Your task to perform on an android device: open app "Cash App" (install if not already installed) Image 0: 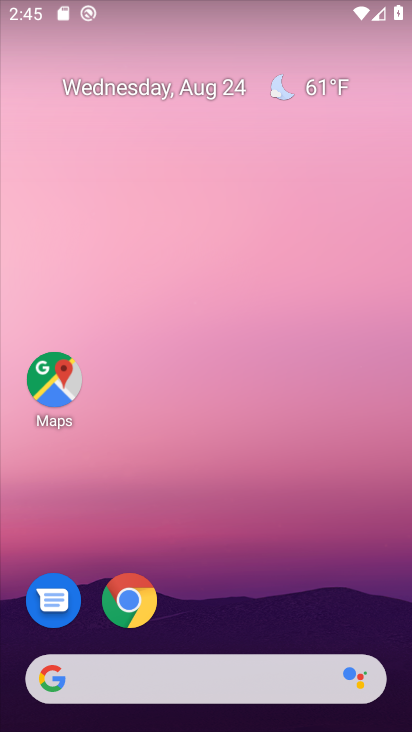
Step 0: drag from (317, 110) to (325, 6)
Your task to perform on an android device: open app "Cash App" (install if not already installed) Image 1: 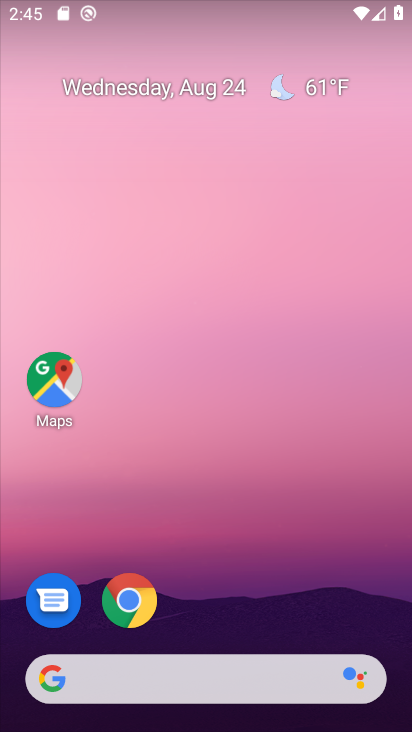
Step 1: drag from (234, 594) to (296, 73)
Your task to perform on an android device: open app "Cash App" (install if not already installed) Image 2: 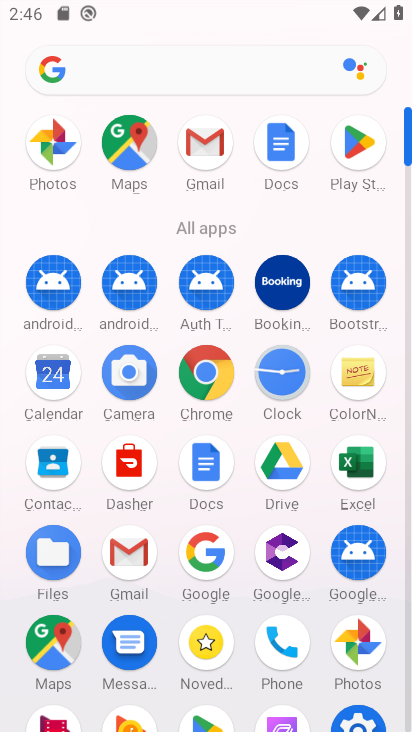
Step 2: click (361, 136)
Your task to perform on an android device: open app "Cash App" (install if not already installed) Image 3: 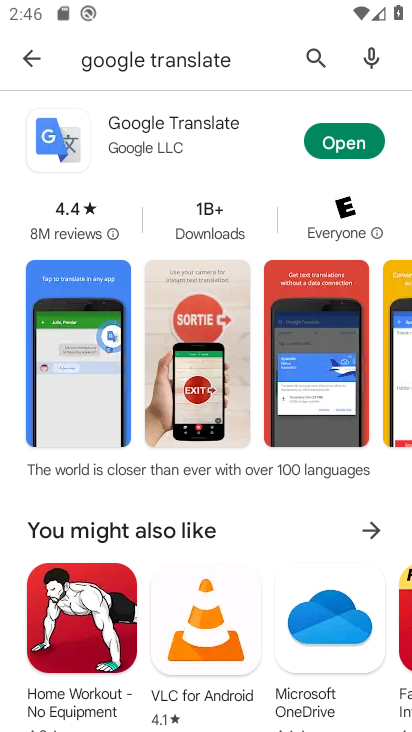
Step 3: click (315, 51)
Your task to perform on an android device: open app "Cash App" (install if not already installed) Image 4: 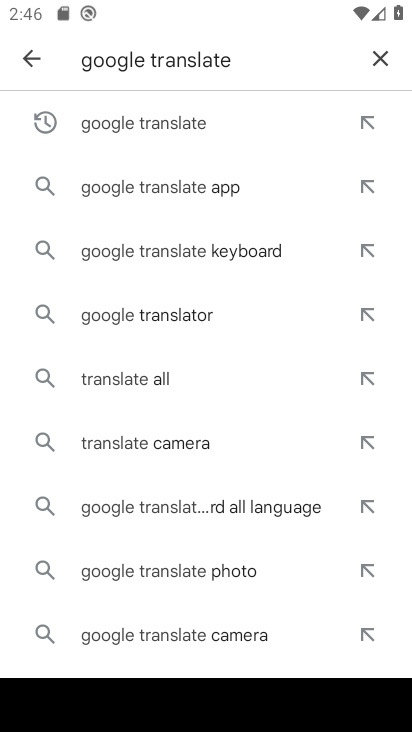
Step 4: click (382, 61)
Your task to perform on an android device: open app "Cash App" (install if not already installed) Image 5: 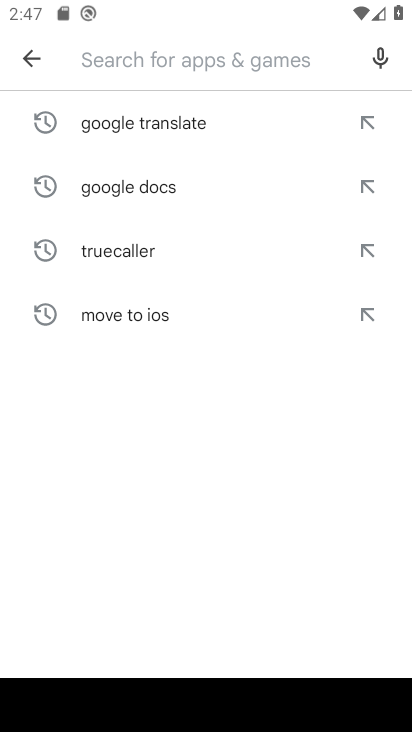
Step 5: click (136, 36)
Your task to perform on an android device: open app "Cash App" (install if not already installed) Image 6: 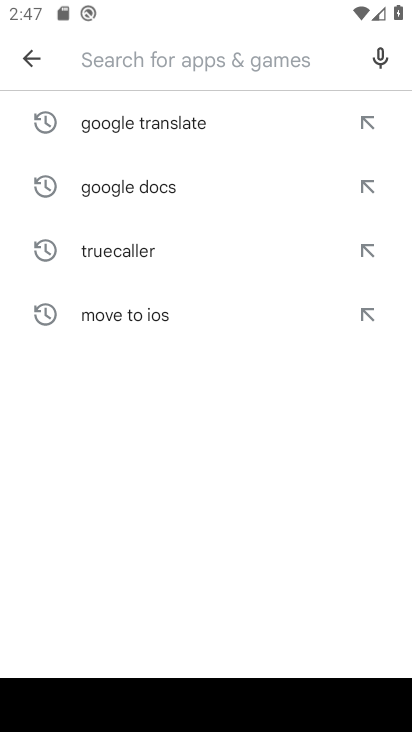
Step 6: type "Cash App"
Your task to perform on an android device: open app "Cash App" (install if not already installed) Image 7: 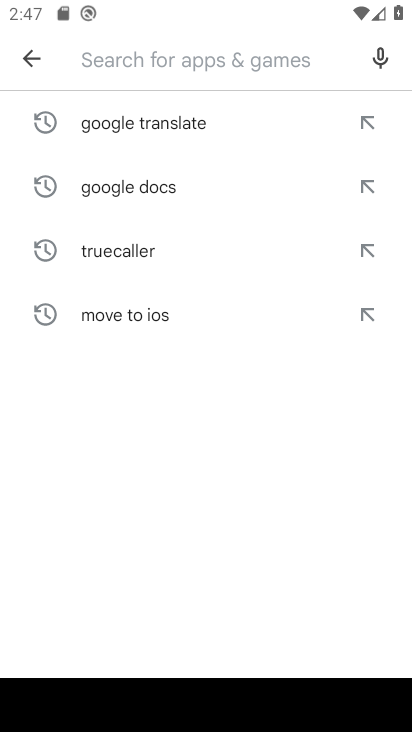
Step 7: click (186, 474)
Your task to perform on an android device: open app "Cash App" (install if not already installed) Image 8: 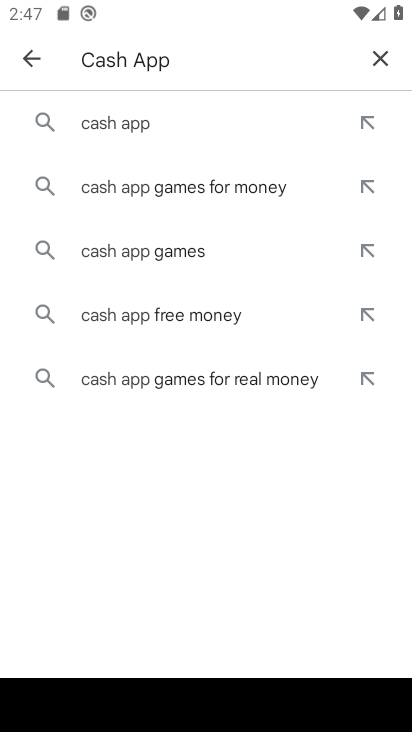
Step 8: click (120, 118)
Your task to perform on an android device: open app "Cash App" (install if not already installed) Image 9: 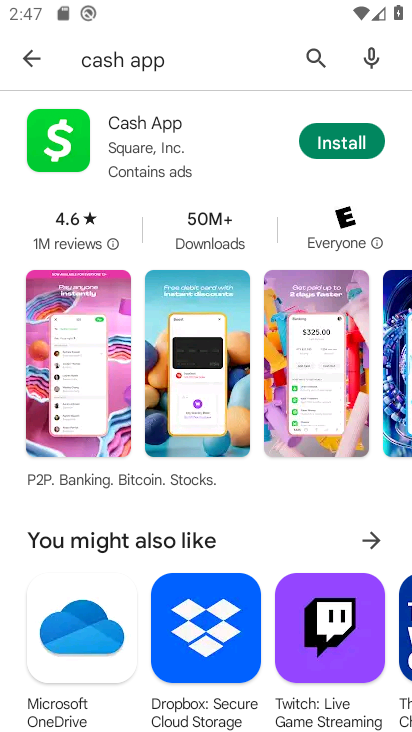
Step 9: click (337, 140)
Your task to perform on an android device: open app "Cash App" (install if not already installed) Image 10: 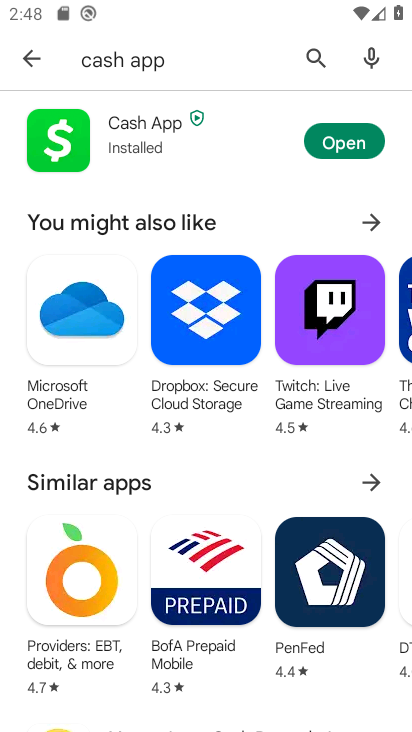
Step 10: click (329, 138)
Your task to perform on an android device: open app "Cash App" (install if not already installed) Image 11: 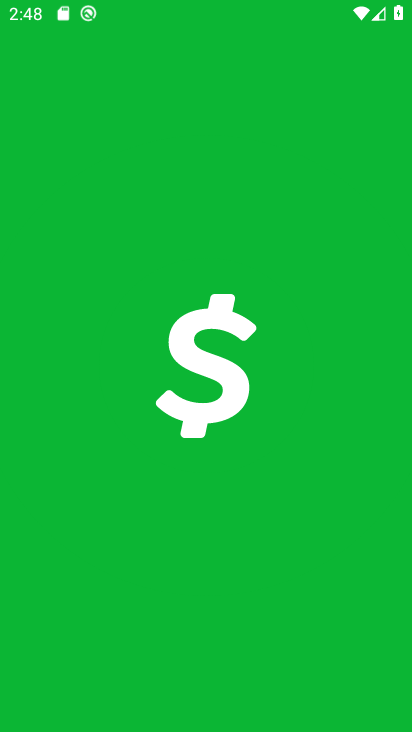
Step 11: task complete